Your task to perform on an android device: snooze an email in the gmail app Image 0: 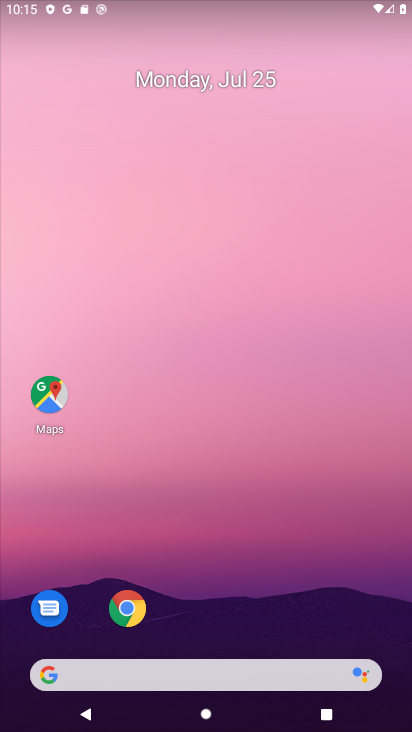
Step 0: drag from (208, 577) to (195, 79)
Your task to perform on an android device: snooze an email in the gmail app Image 1: 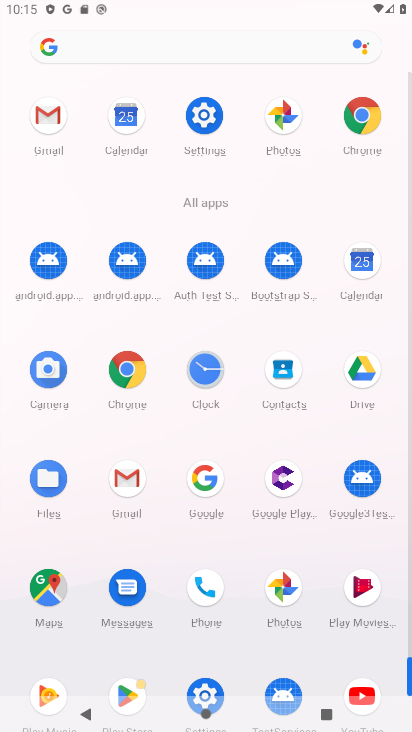
Step 1: click (112, 478)
Your task to perform on an android device: snooze an email in the gmail app Image 2: 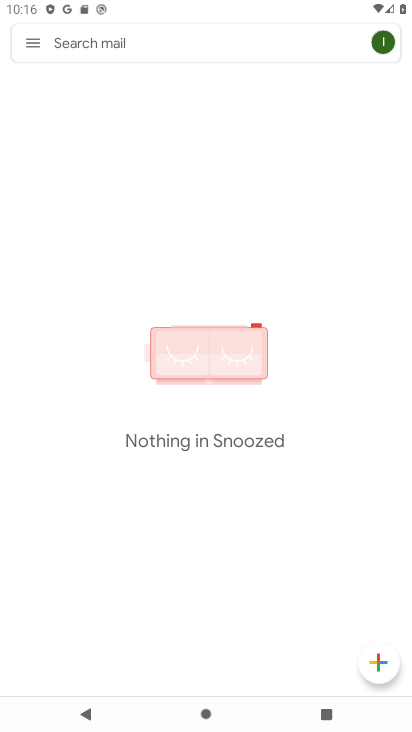
Step 2: task complete